Your task to perform on an android device: Open ESPN.com Image 0: 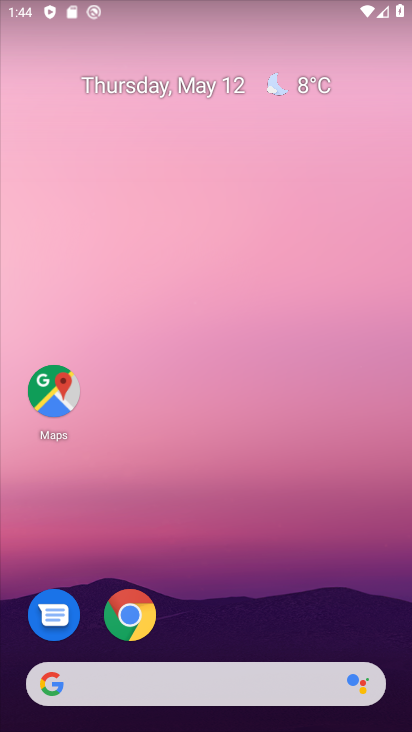
Step 0: drag from (243, 584) to (227, 132)
Your task to perform on an android device: Open ESPN.com Image 1: 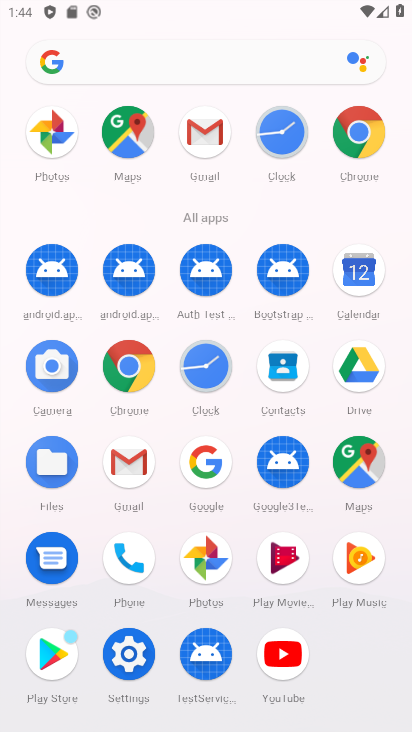
Step 1: click (207, 458)
Your task to perform on an android device: Open ESPN.com Image 2: 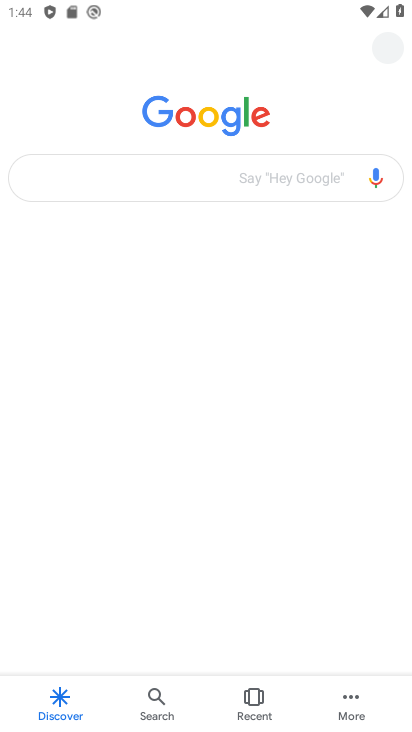
Step 2: click (161, 173)
Your task to perform on an android device: Open ESPN.com Image 3: 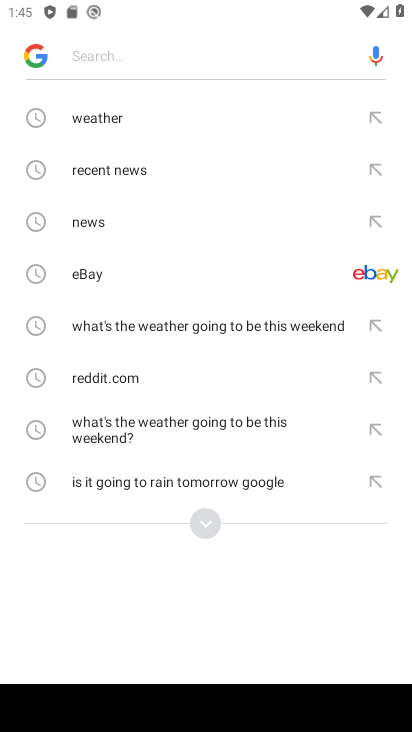
Step 3: type "espn.com"
Your task to perform on an android device: Open ESPN.com Image 4: 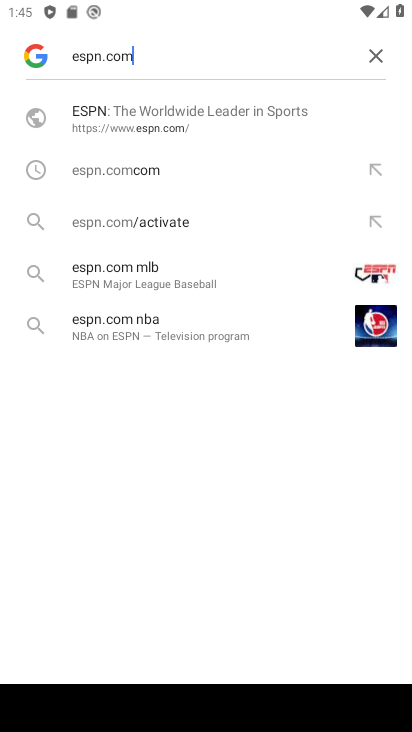
Step 4: click (116, 124)
Your task to perform on an android device: Open ESPN.com Image 5: 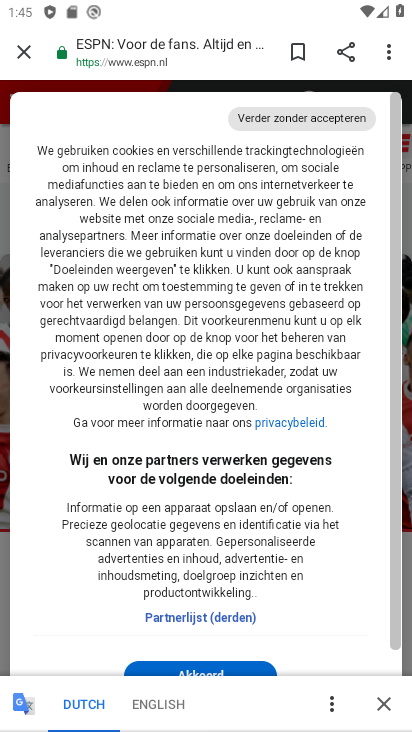
Step 5: task complete